Your task to perform on an android device: Do I have any events today? Image 0: 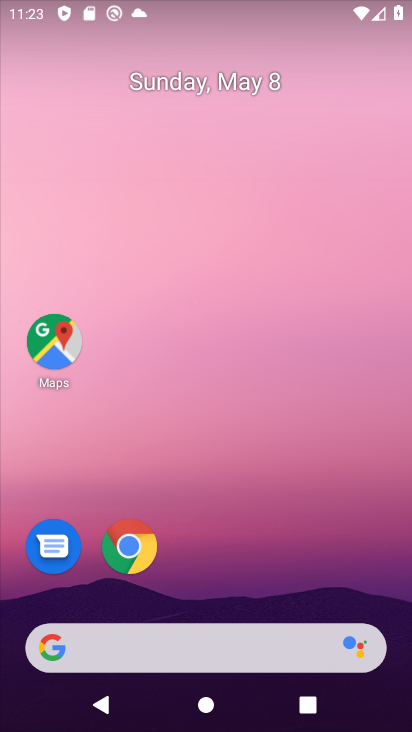
Step 0: drag from (284, 499) to (316, 64)
Your task to perform on an android device: Do I have any events today? Image 1: 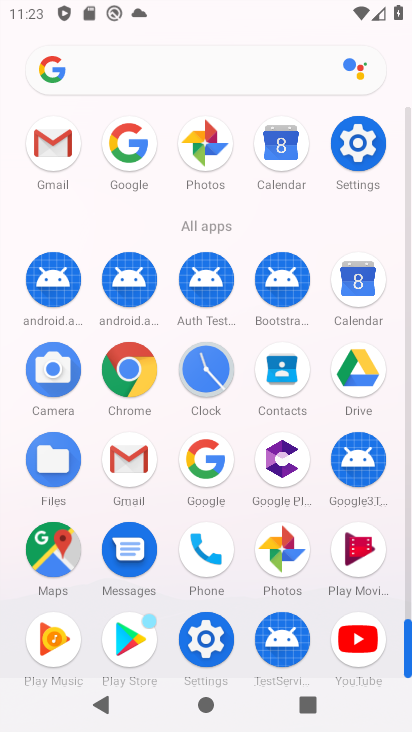
Step 1: click (360, 292)
Your task to perform on an android device: Do I have any events today? Image 2: 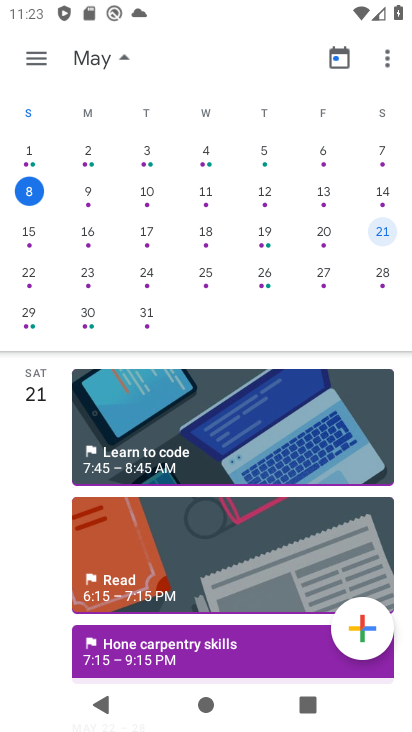
Step 2: task complete